Your task to perform on an android device: Open calendar and show me the second week of next month Image 0: 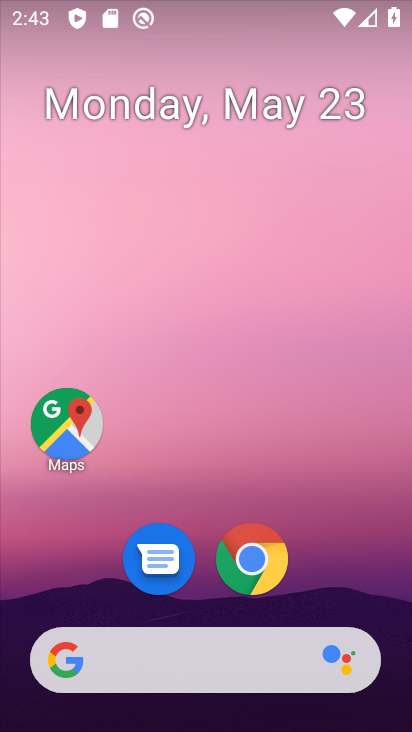
Step 0: drag from (282, 601) to (291, 184)
Your task to perform on an android device: Open calendar and show me the second week of next month Image 1: 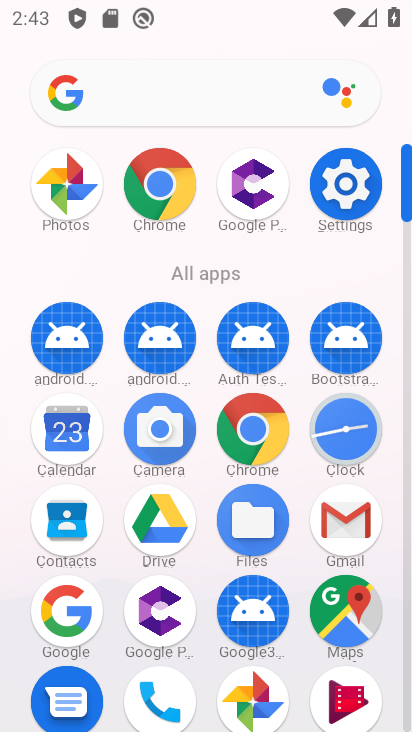
Step 1: click (69, 435)
Your task to perform on an android device: Open calendar and show me the second week of next month Image 2: 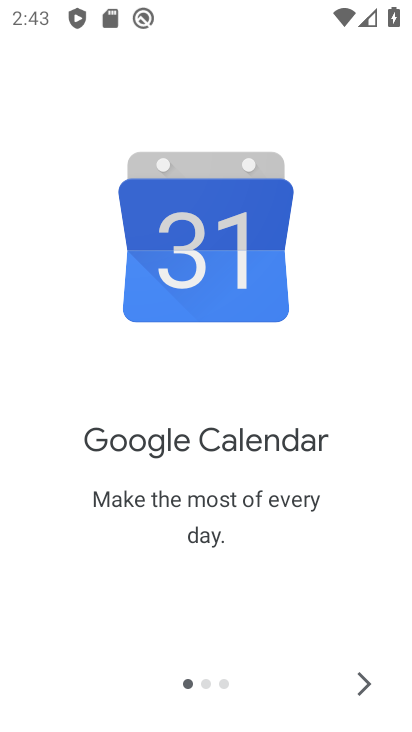
Step 2: click (374, 678)
Your task to perform on an android device: Open calendar and show me the second week of next month Image 3: 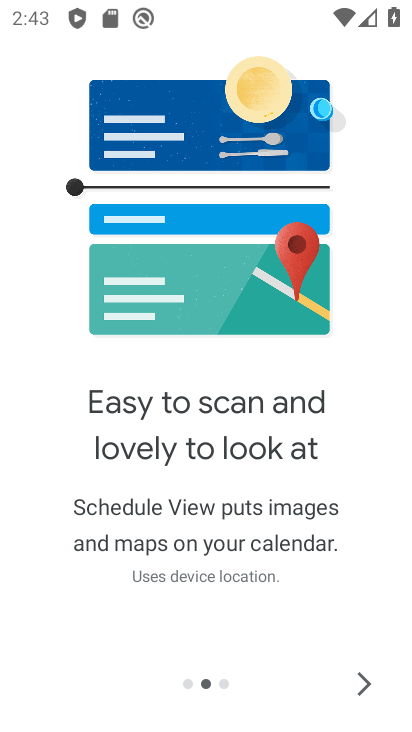
Step 3: click (370, 677)
Your task to perform on an android device: Open calendar and show me the second week of next month Image 4: 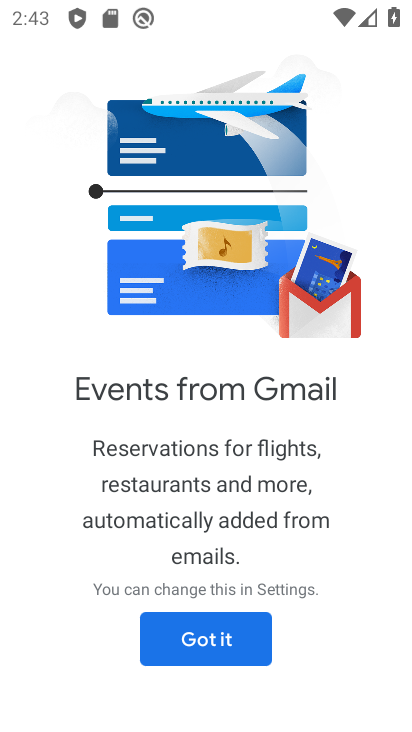
Step 4: click (244, 637)
Your task to perform on an android device: Open calendar and show me the second week of next month Image 5: 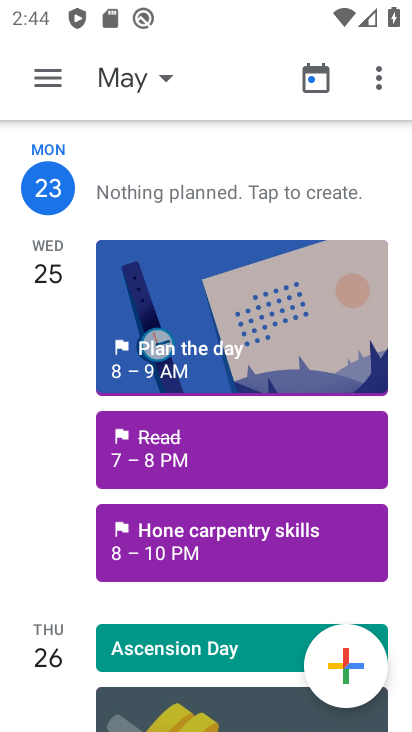
Step 5: click (156, 78)
Your task to perform on an android device: Open calendar and show me the second week of next month Image 6: 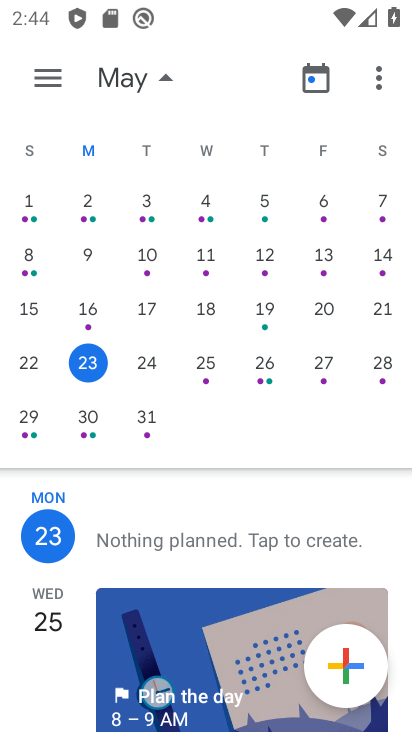
Step 6: drag from (384, 305) to (3, 309)
Your task to perform on an android device: Open calendar and show me the second week of next month Image 7: 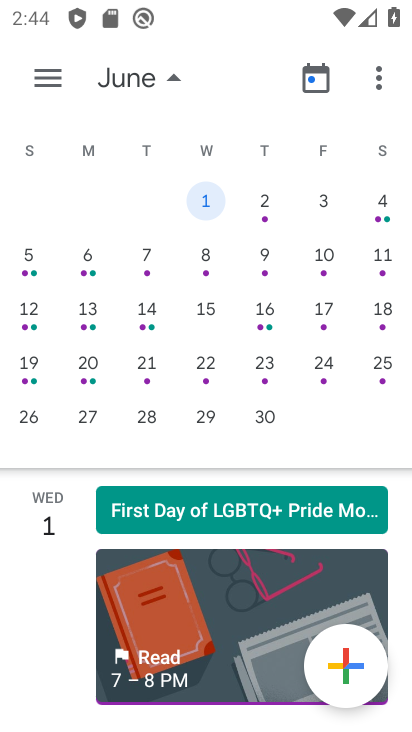
Step 7: click (36, 321)
Your task to perform on an android device: Open calendar and show me the second week of next month Image 8: 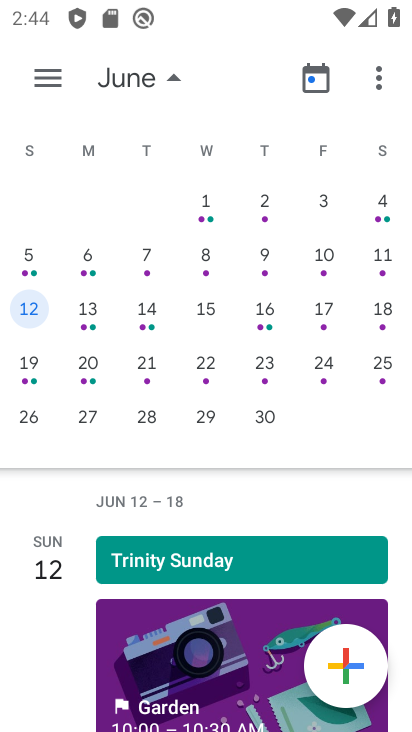
Step 8: task complete